Your task to perform on an android device: Go to wifi settings Image 0: 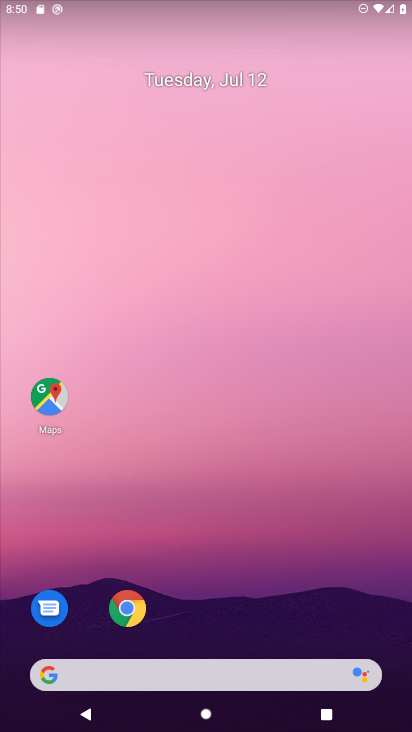
Step 0: drag from (248, 11) to (305, 559)
Your task to perform on an android device: Go to wifi settings Image 1: 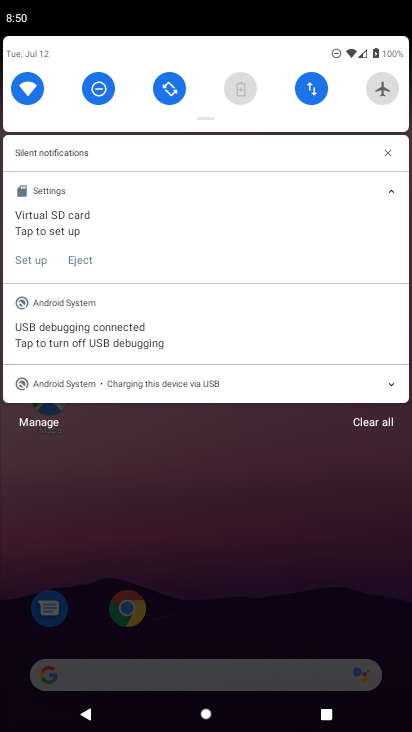
Step 1: click (25, 91)
Your task to perform on an android device: Go to wifi settings Image 2: 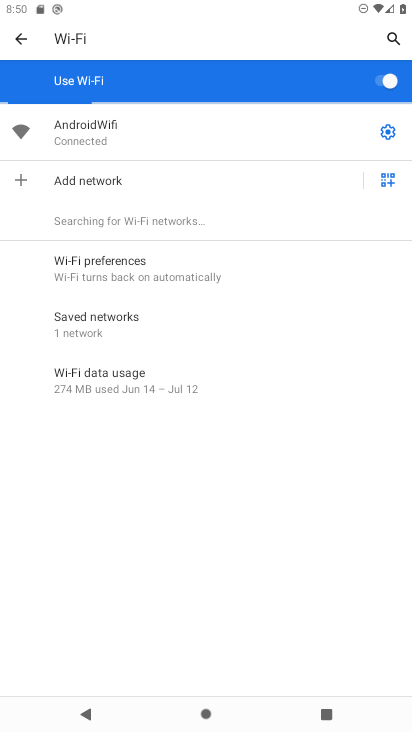
Step 2: task complete